Your task to perform on an android device: change notification settings in the gmail app Image 0: 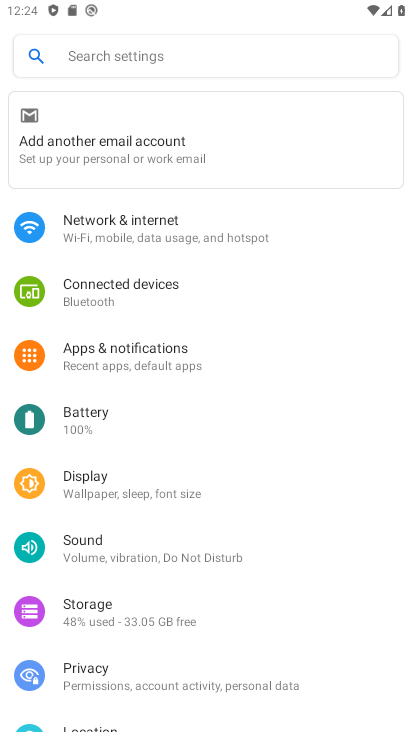
Step 0: press home button
Your task to perform on an android device: change notification settings in the gmail app Image 1: 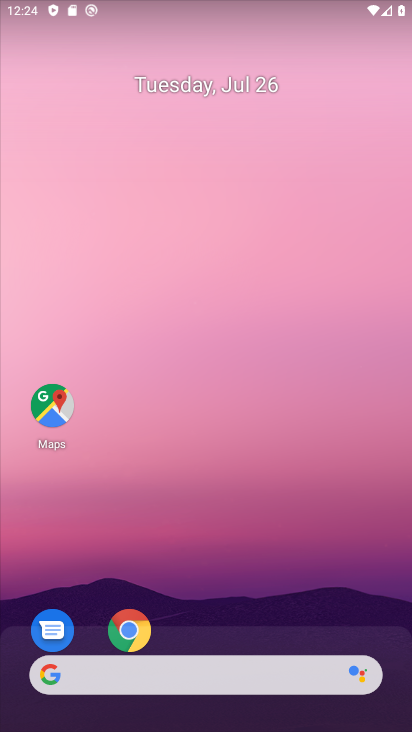
Step 1: drag from (350, 455) to (324, 74)
Your task to perform on an android device: change notification settings in the gmail app Image 2: 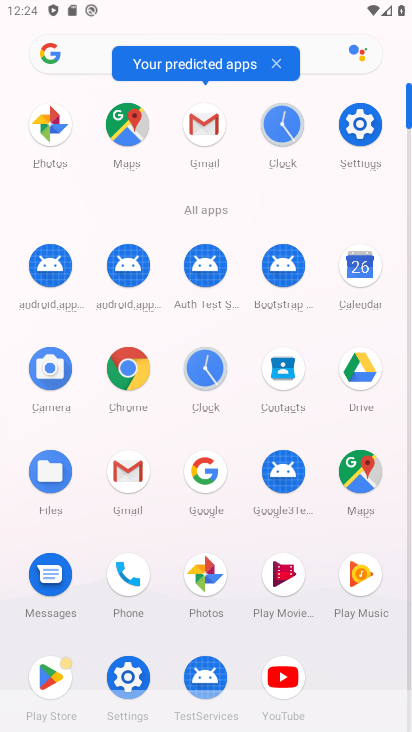
Step 2: click (125, 474)
Your task to perform on an android device: change notification settings in the gmail app Image 3: 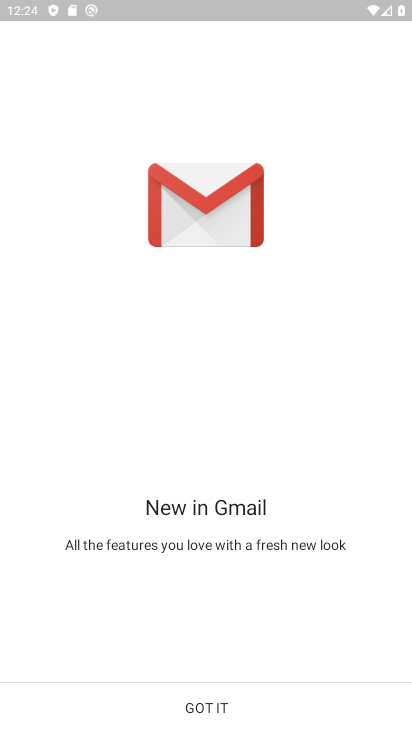
Step 3: click (203, 709)
Your task to perform on an android device: change notification settings in the gmail app Image 4: 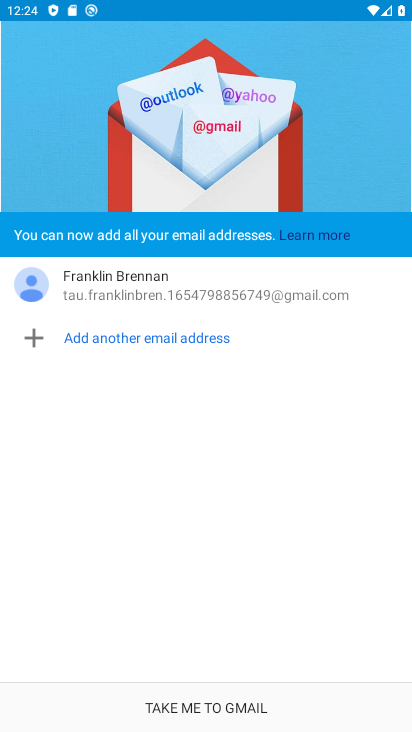
Step 4: click (203, 709)
Your task to perform on an android device: change notification settings in the gmail app Image 5: 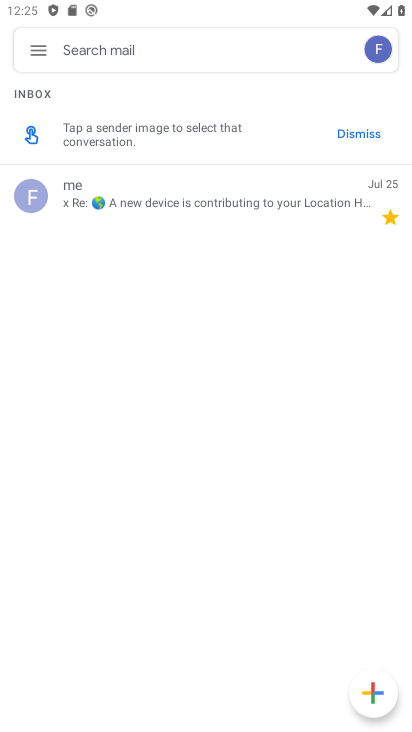
Step 5: click (38, 52)
Your task to perform on an android device: change notification settings in the gmail app Image 6: 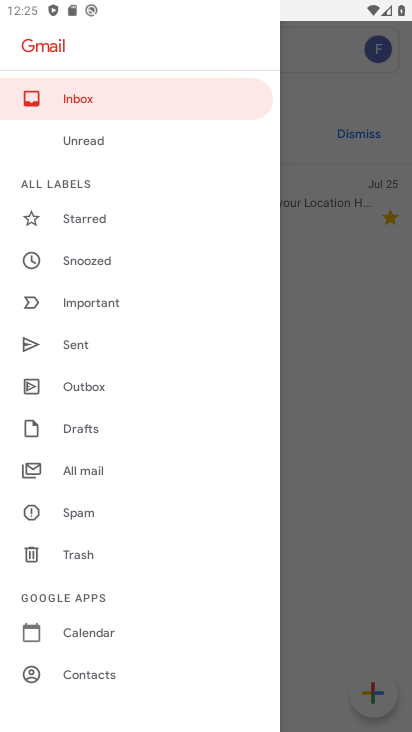
Step 6: drag from (127, 660) to (137, 241)
Your task to perform on an android device: change notification settings in the gmail app Image 7: 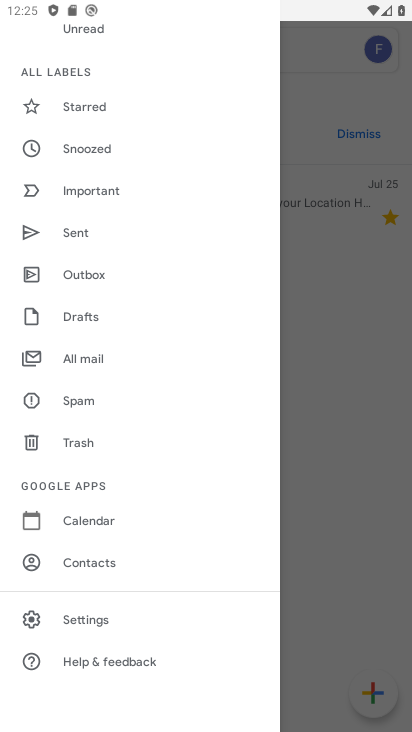
Step 7: click (78, 615)
Your task to perform on an android device: change notification settings in the gmail app Image 8: 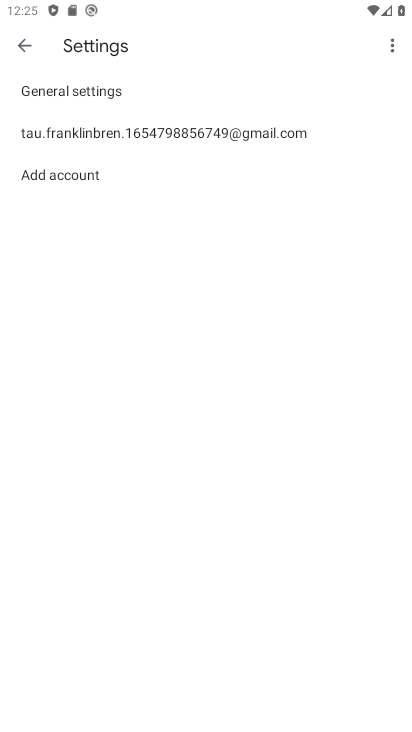
Step 8: click (112, 129)
Your task to perform on an android device: change notification settings in the gmail app Image 9: 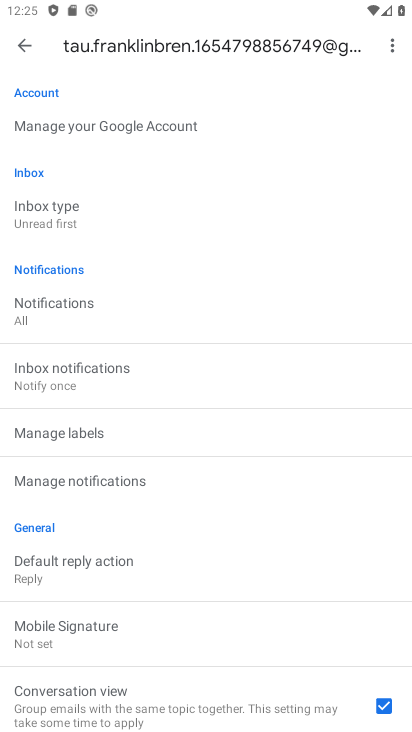
Step 9: click (74, 468)
Your task to perform on an android device: change notification settings in the gmail app Image 10: 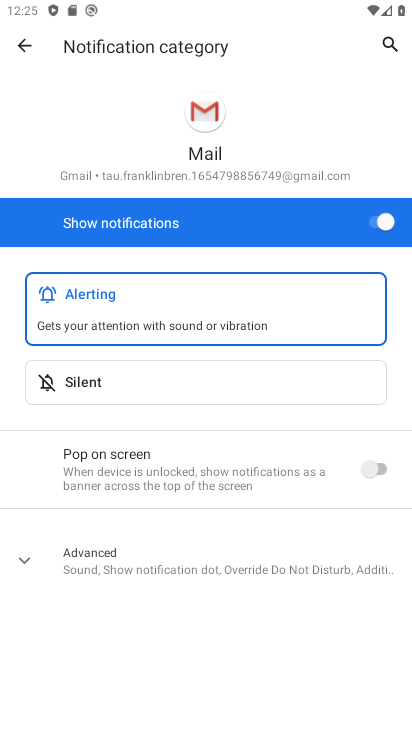
Step 10: click (377, 221)
Your task to perform on an android device: change notification settings in the gmail app Image 11: 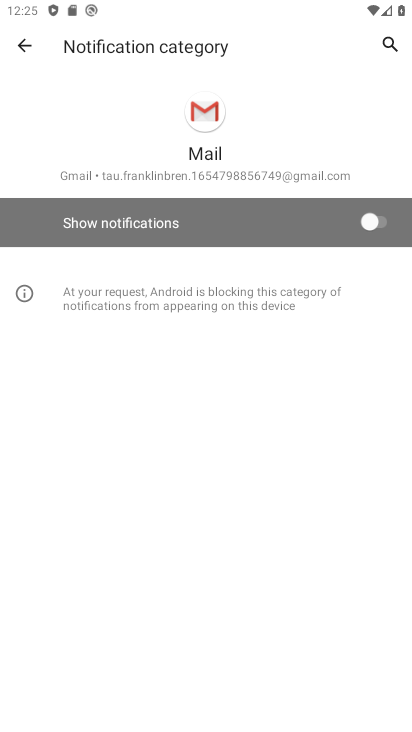
Step 11: task complete